Your task to perform on an android device: change alarm snooze length Image 0: 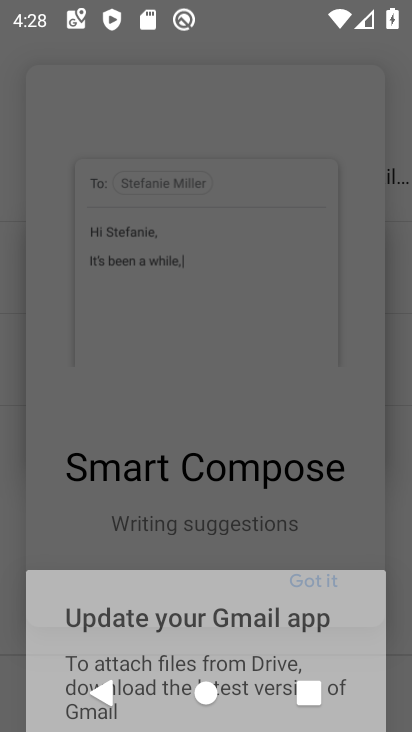
Step 0: press home button
Your task to perform on an android device: change alarm snooze length Image 1: 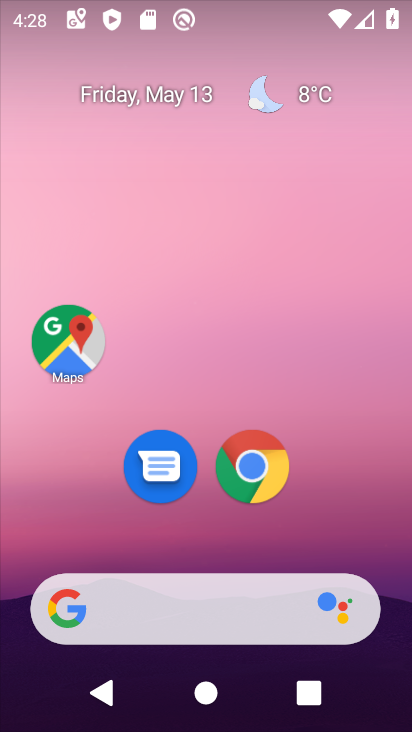
Step 1: drag from (390, 625) to (326, 57)
Your task to perform on an android device: change alarm snooze length Image 2: 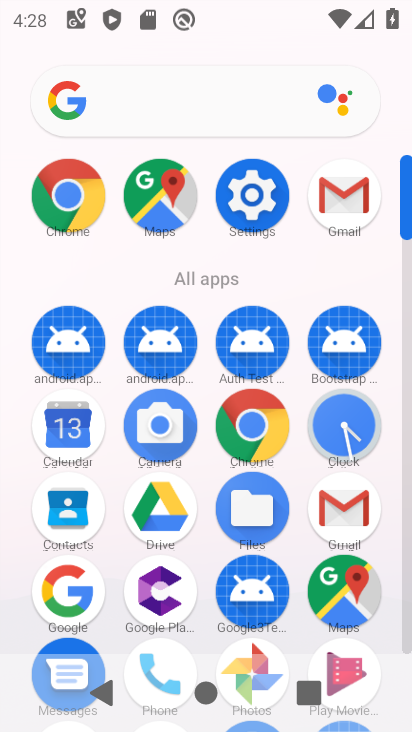
Step 2: click (337, 417)
Your task to perform on an android device: change alarm snooze length Image 3: 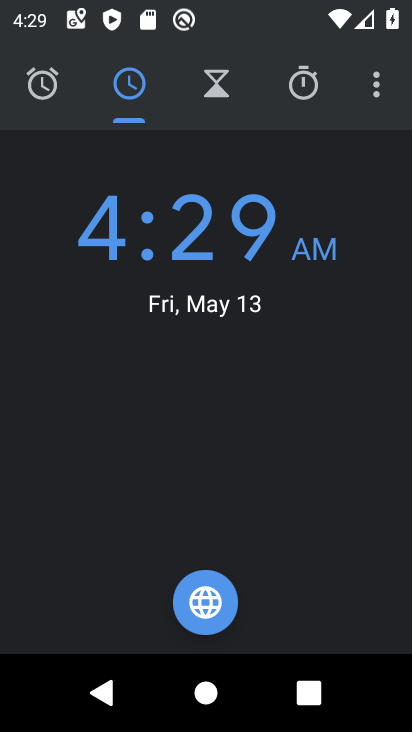
Step 3: click (372, 94)
Your task to perform on an android device: change alarm snooze length Image 4: 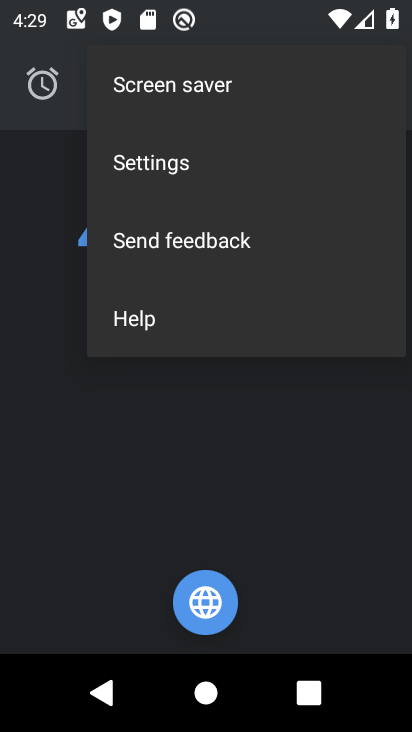
Step 4: click (155, 165)
Your task to perform on an android device: change alarm snooze length Image 5: 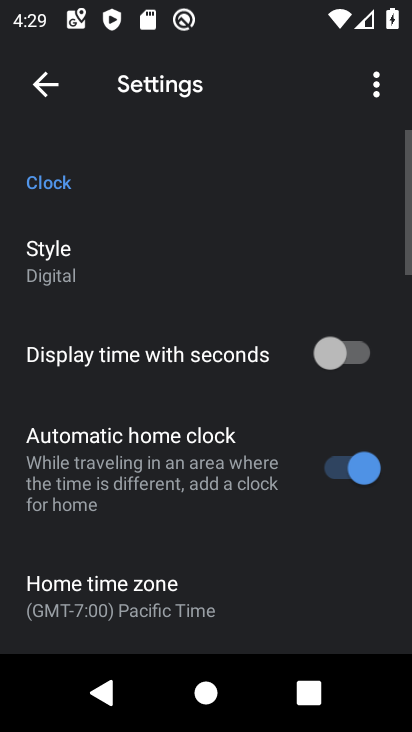
Step 5: drag from (269, 559) to (280, 148)
Your task to perform on an android device: change alarm snooze length Image 6: 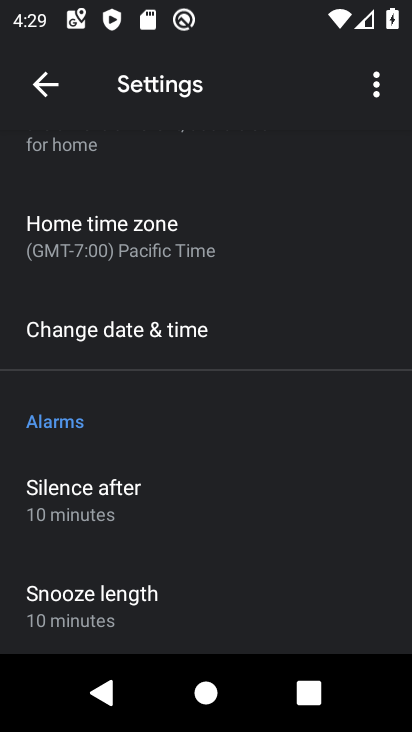
Step 6: drag from (254, 584) to (242, 340)
Your task to perform on an android device: change alarm snooze length Image 7: 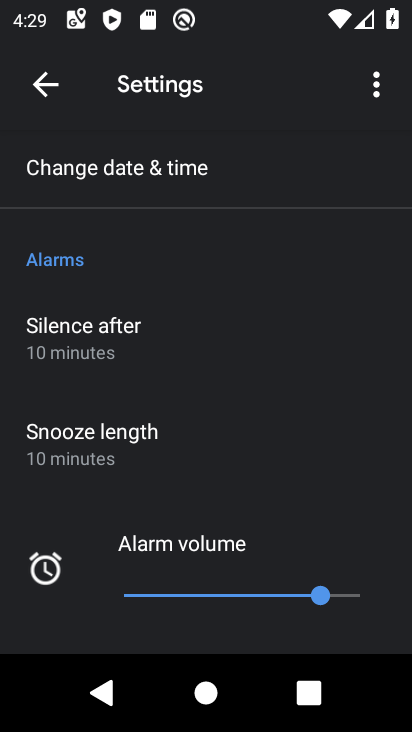
Step 7: click (108, 441)
Your task to perform on an android device: change alarm snooze length Image 8: 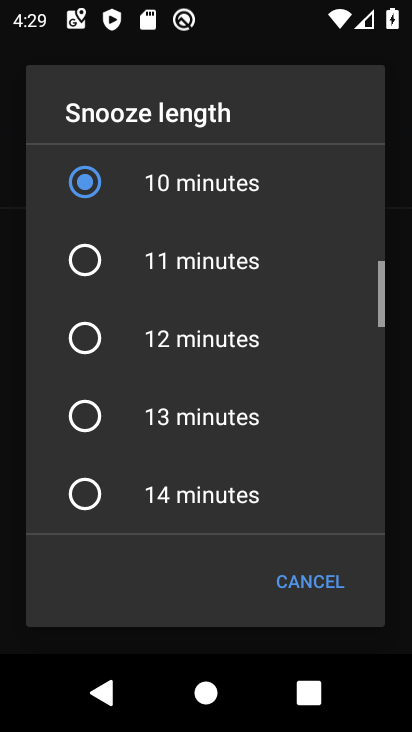
Step 8: click (89, 491)
Your task to perform on an android device: change alarm snooze length Image 9: 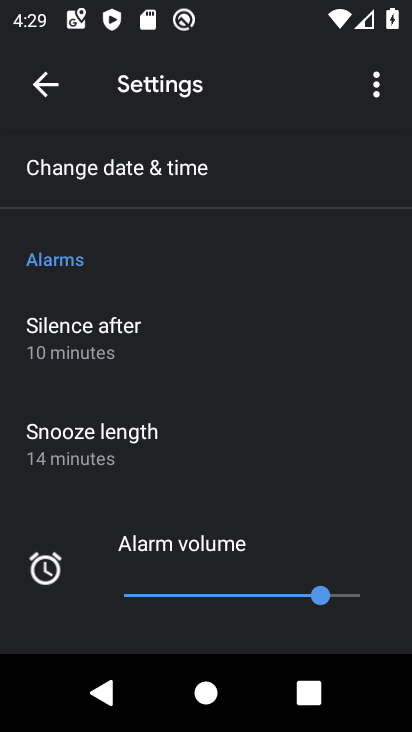
Step 9: task complete